Your task to perform on an android device: change text size in settings app Image 0: 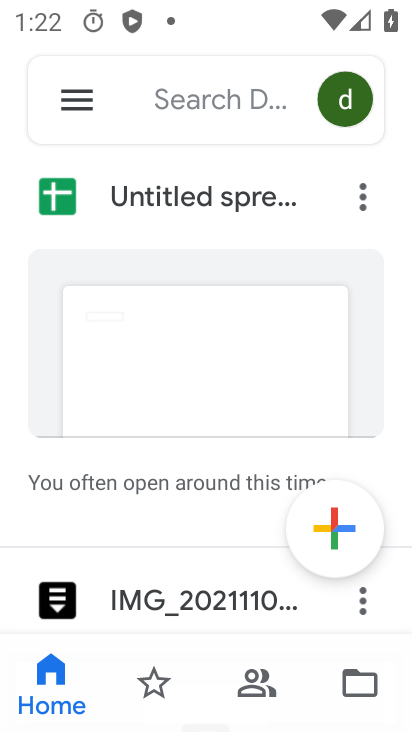
Step 0: press home button
Your task to perform on an android device: change text size in settings app Image 1: 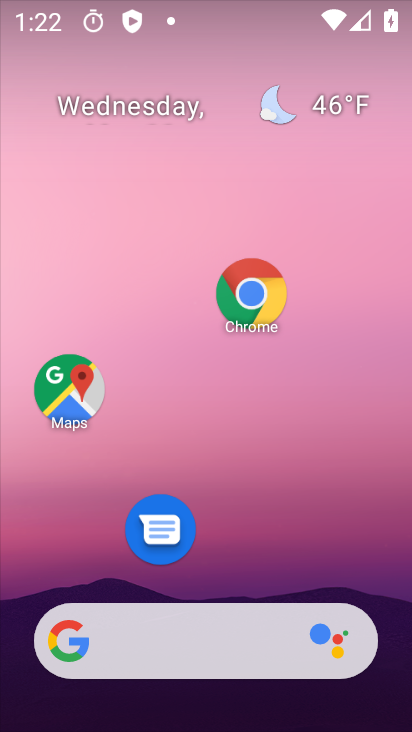
Step 1: drag from (223, 559) to (207, 43)
Your task to perform on an android device: change text size in settings app Image 2: 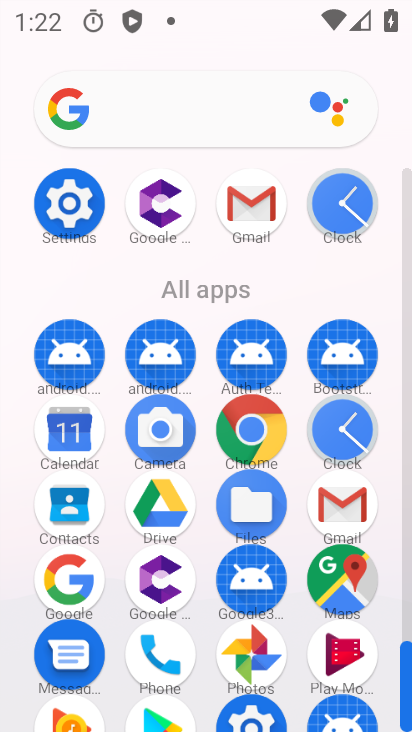
Step 2: click (84, 187)
Your task to perform on an android device: change text size in settings app Image 3: 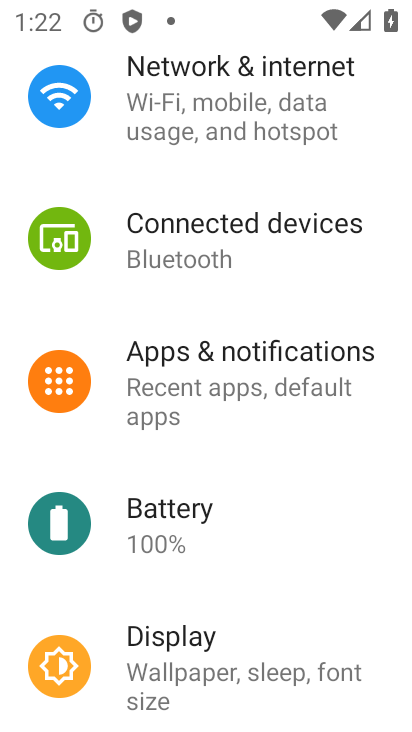
Step 3: click (156, 652)
Your task to perform on an android device: change text size in settings app Image 4: 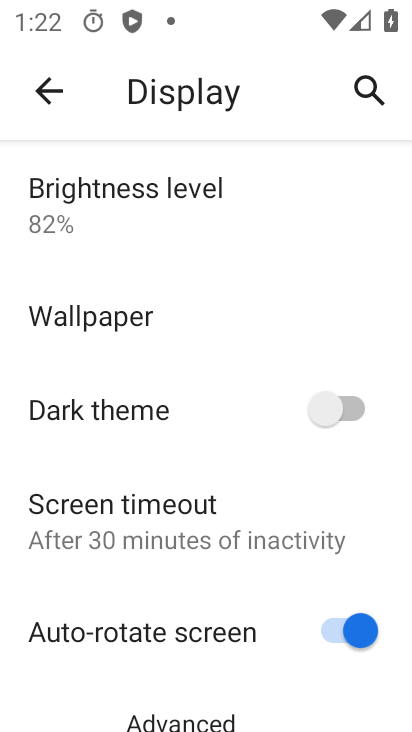
Step 4: drag from (156, 652) to (241, 149)
Your task to perform on an android device: change text size in settings app Image 5: 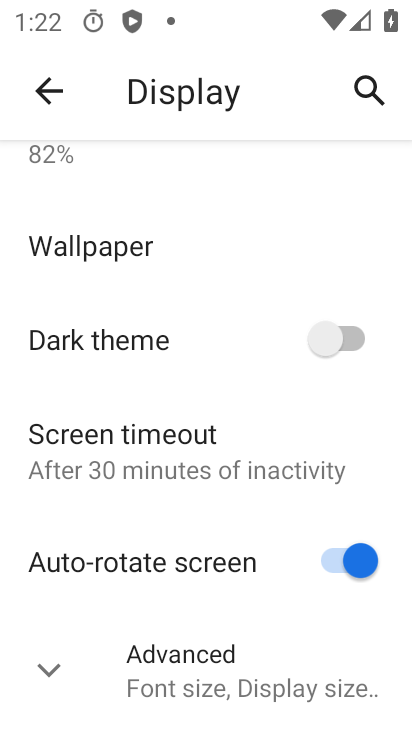
Step 5: click (196, 688)
Your task to perform on an android device: change text size in settings app Image 6: 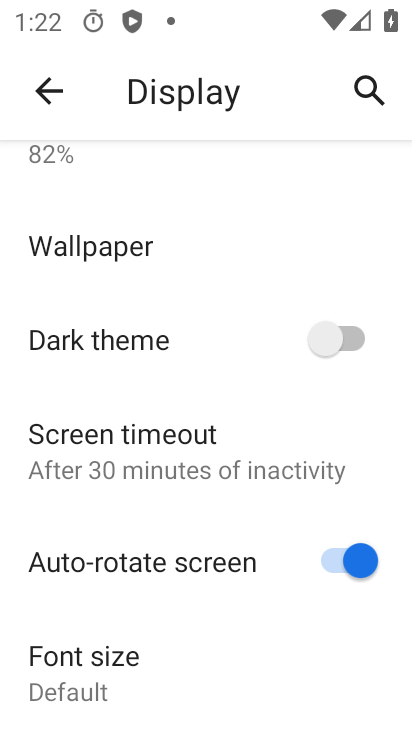
Step 6: click (196, 688)
Your task to perform on an android device: change text size in settings app Image 7: 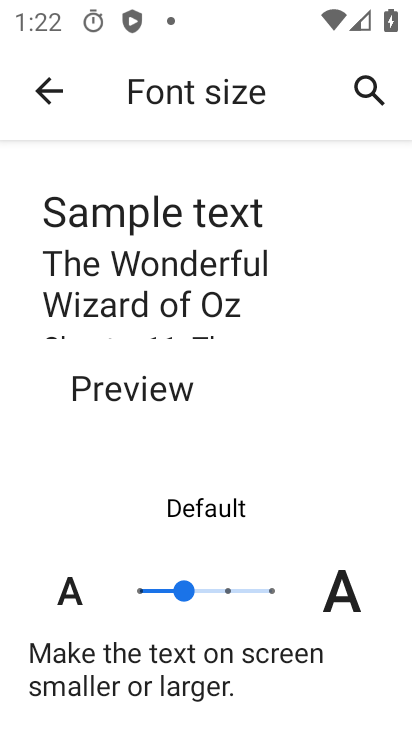
Step 7: click (225, 593)
Your task to perform on an android device: change text size in settings app Image 8: 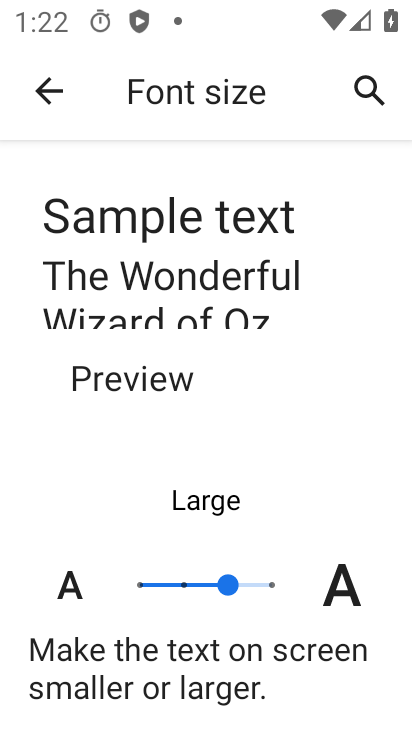
Step 8: task complete